Your task to perform on an android device: Open wifi settings Image 0: 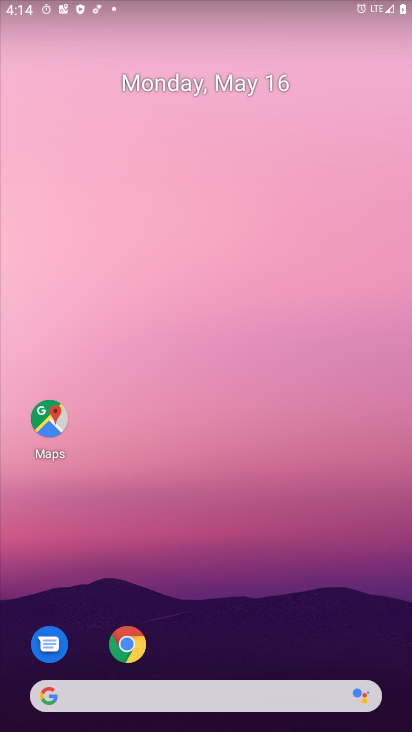
Step 0: drag from (276, 535) to (329, 34)
Your task to perform on an android device: Open wifi settings Image 1: 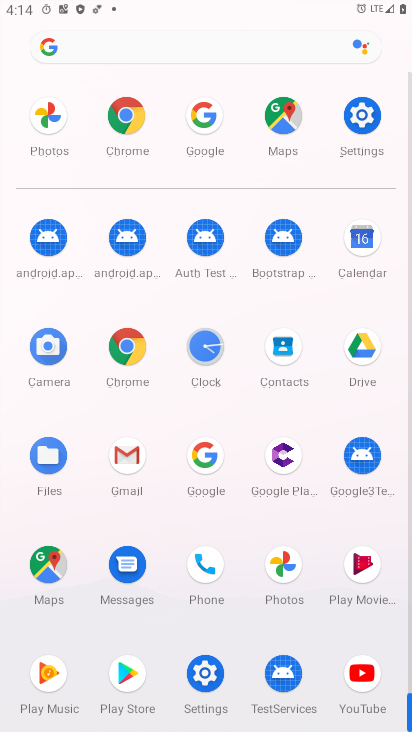
Step 1: click (365, 114)
Your task to perform on an android device: Open wifi settings Image 2: 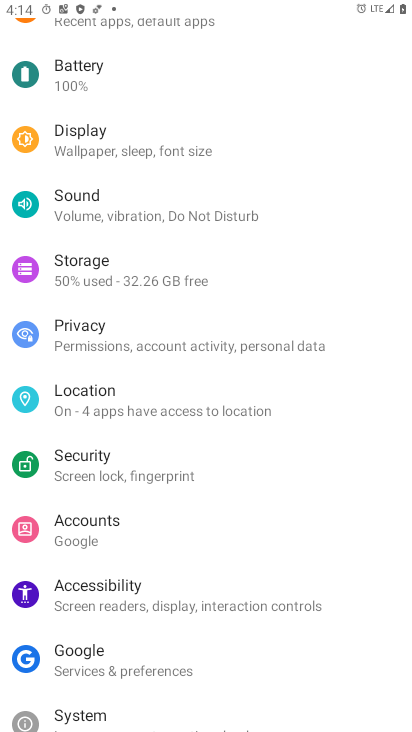
Step 2: drag from (221, 312) to (185, 666)
Your task to perform on an android device: Open wifi settings Image 3: 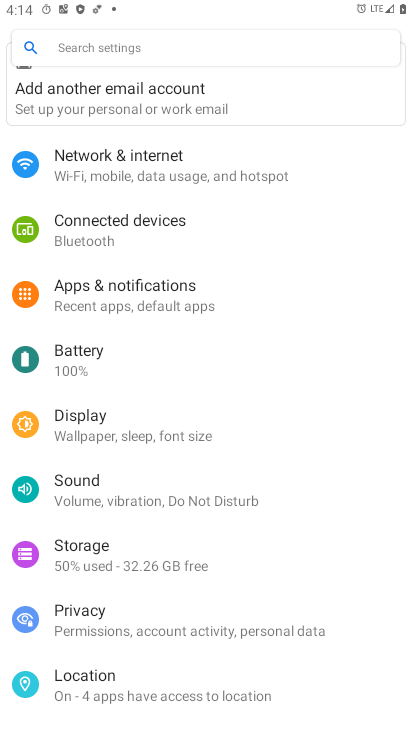
Step 3: drag from (209, 456) to (208, 627)
Your task to perform on an android device: Open wifi settings Image 4: 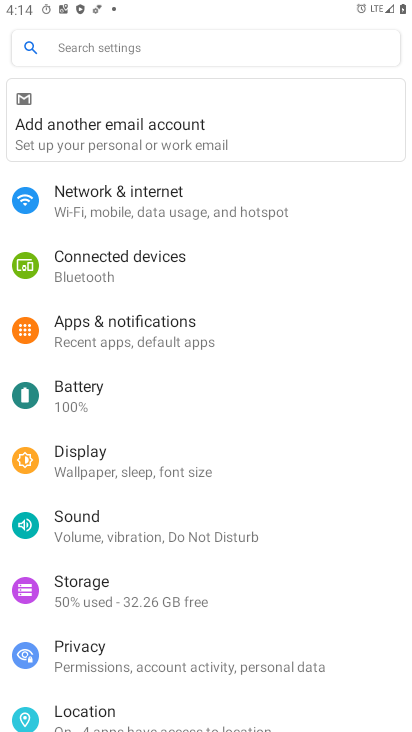
Step 4: click (263, 215)
Your task to perform on an android device: Open wifi settings Image 5: 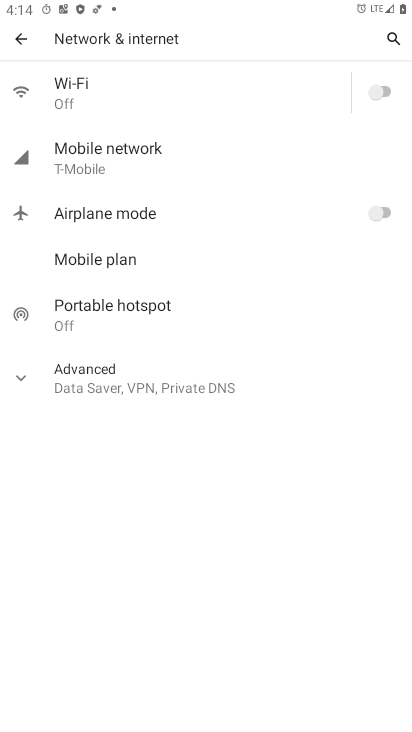
Step 5: click (177, 81)
Your task to perform on an android device: Open wifi settings Image 6: 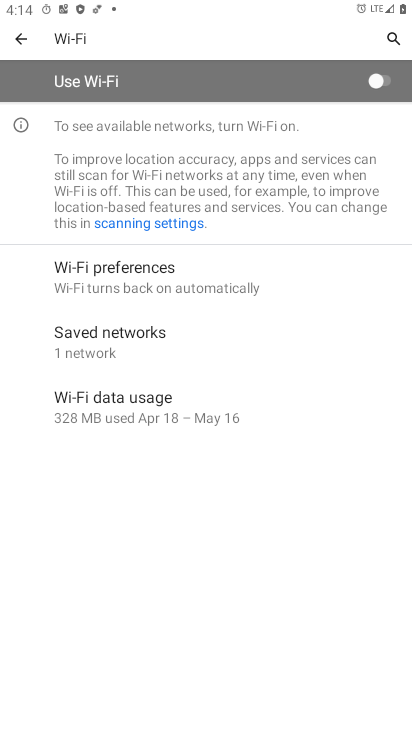
Step 6: task complete